Your task to perform on an android device: empty trash in the gmail app Image 0: 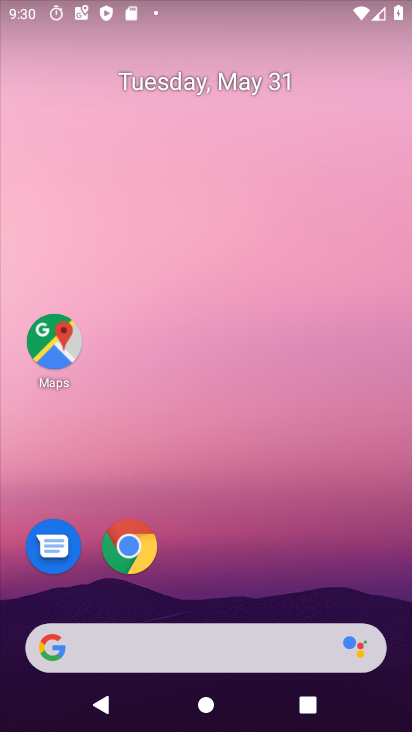
Step 0: drag from (312, 575) to (296, 42)
Your task to perform on an android device: empty trash in the gmail app Image 1: 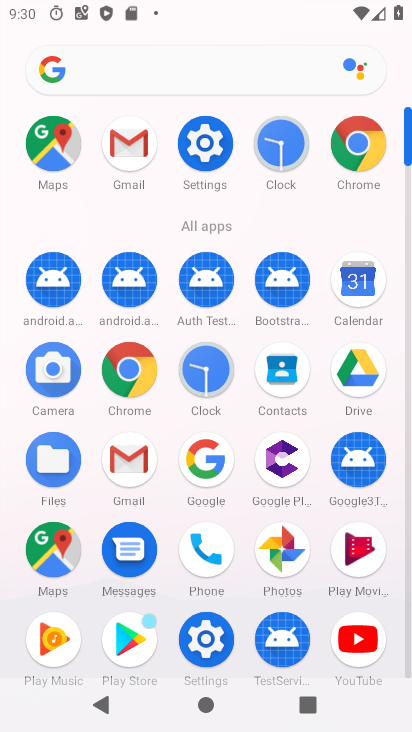
Step 1: click (137, 139)
Your task to perform on an android device: empty trash in the gmail app Image 2: 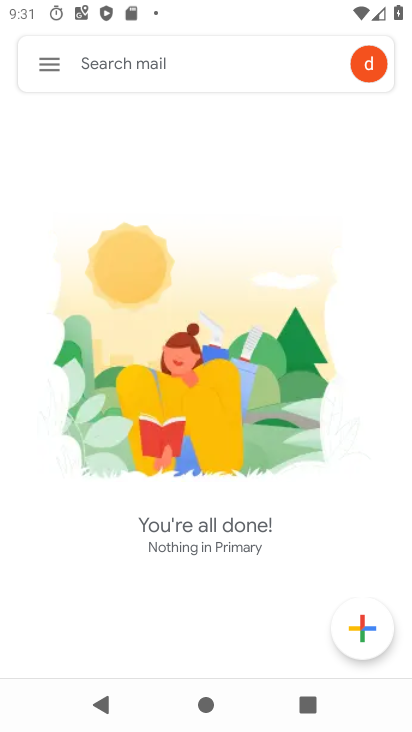
Step 2: click (61, 59)
Your task to perform on an android device: empty trash in the gmail app Image 3: 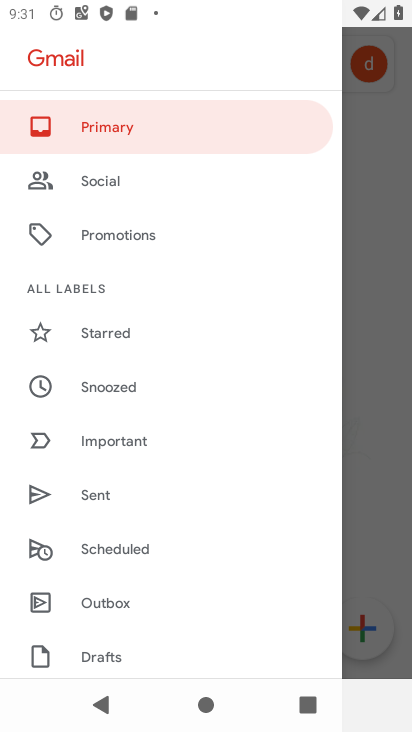
Step 3: drag from (141, 524) to (206, 77)
Your task to perform on an android device: empty trash in the gmail app Image 4: 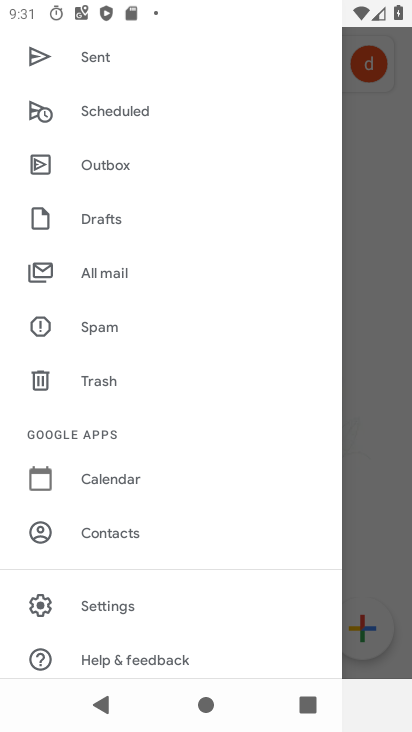
Step 4: click (123, 373)
Your task to perform on an android device: empty trash in the gmail app Image 5: 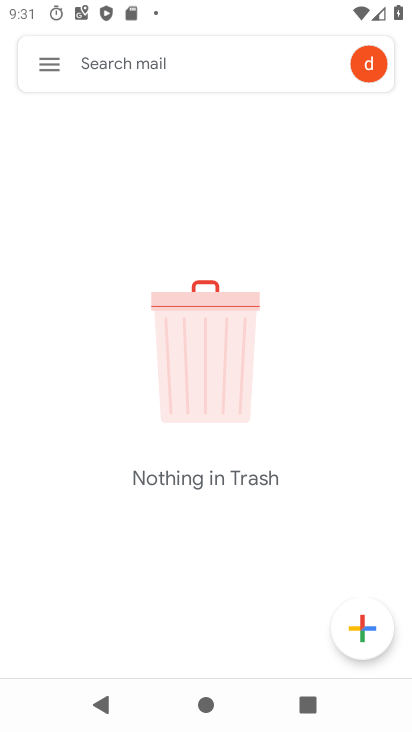
Step 5: task complete